Your task to perform on an android device: find photos in the google photos app Image 0: 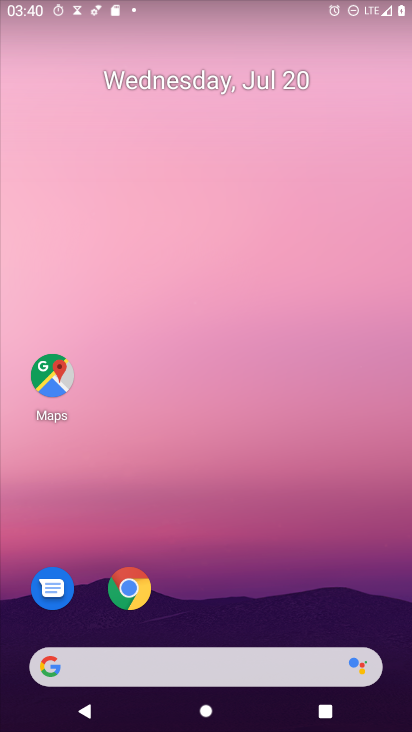
Step 0: drag from (189, 632) to (196, 68)
Your task to perform on an android device: find photos in the google photos app Image 1: 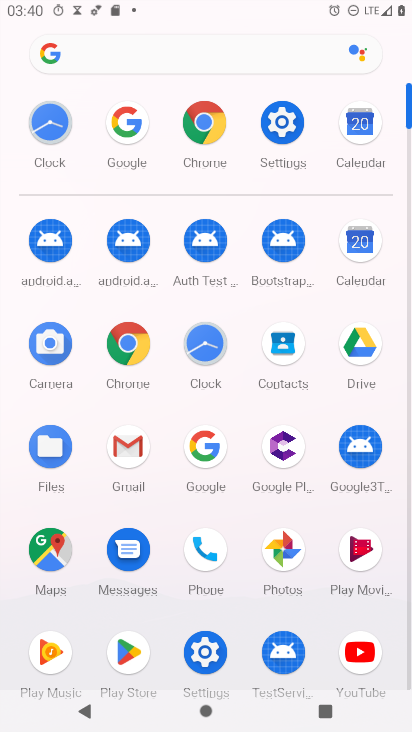
Step 1: click (305, 571)
Your task to perform on an android device: find photos in the google photos app Image 2: 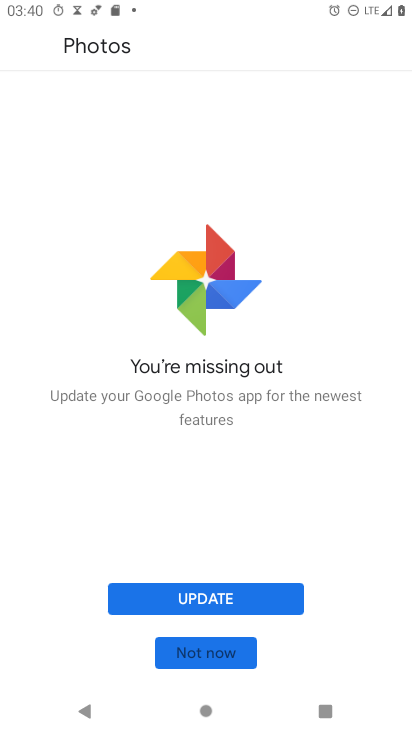
Step 2: click (214, 602)
Your task to perform on an android device: find photos in the google photos app Image 3: 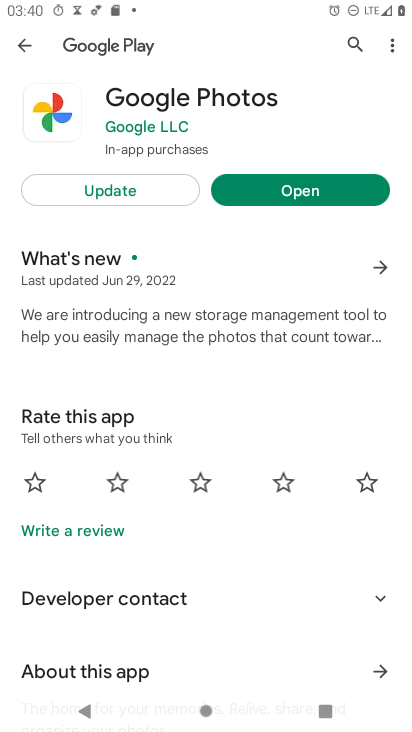
Step 3: click (100, 192)
Your task to perform on an android device: find photos in the google photos app Image 4: 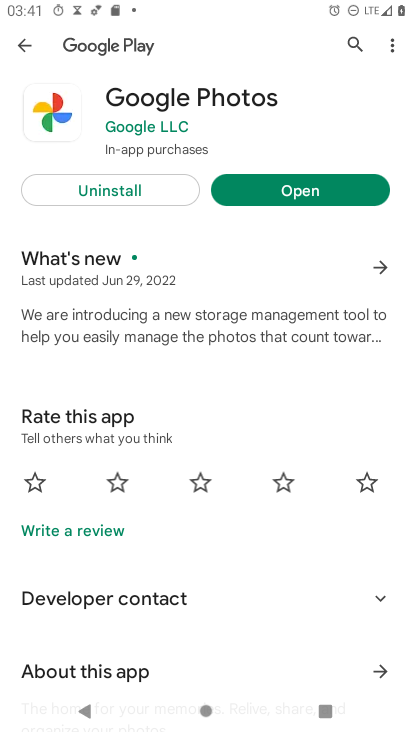
Step 4: click (244, 189)
Your task to perform on an android device: find photos in the google photos app Image 5: 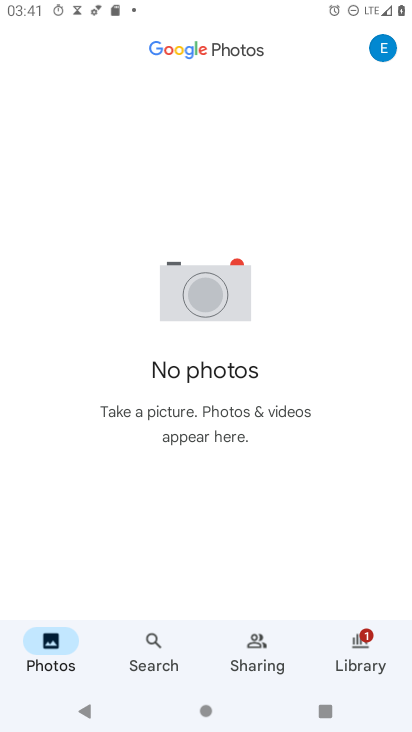
Step 5: task complete